Your task to perform on an android device: turn off notifications settings in the gmail app Image 0: 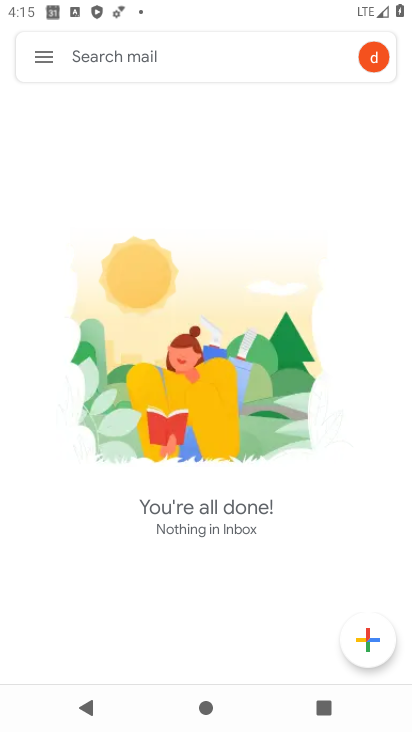
Step 0: click (39, 53)
Your task to perform on an android device: turn off notifications settings in the gmail app Image 1: 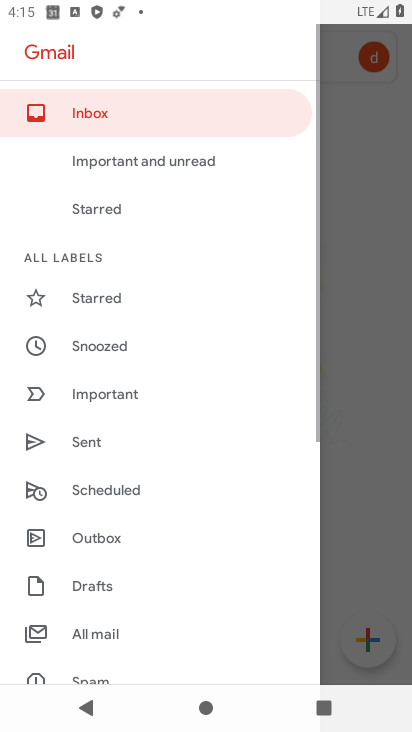
Step 1: drag from (144, 581) to (145, 214)
Your task to perform on an android device: turn off notifications settings in the gmail app Image 2: 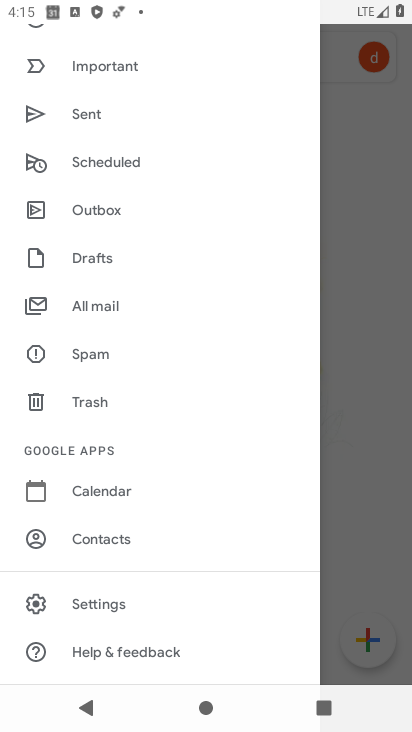
Step 2: click (120, 603)
Your task to perform on an android device: turn off notifications settings in the gmail app Image 3: 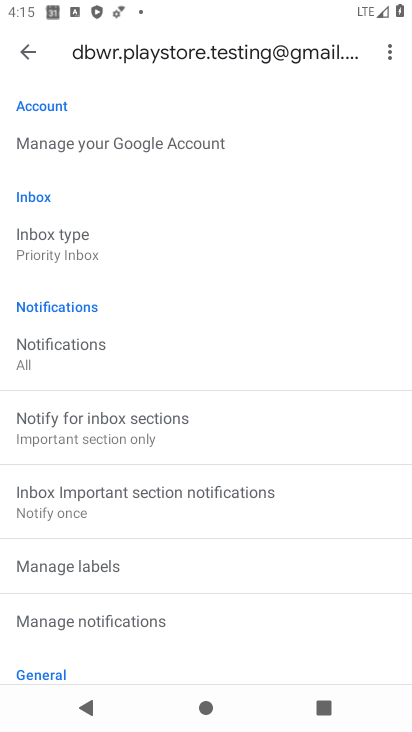
Step 3: click (105, 613)
Your task to perform on an android device: turn off notifications settings in the gmail app Image 4: 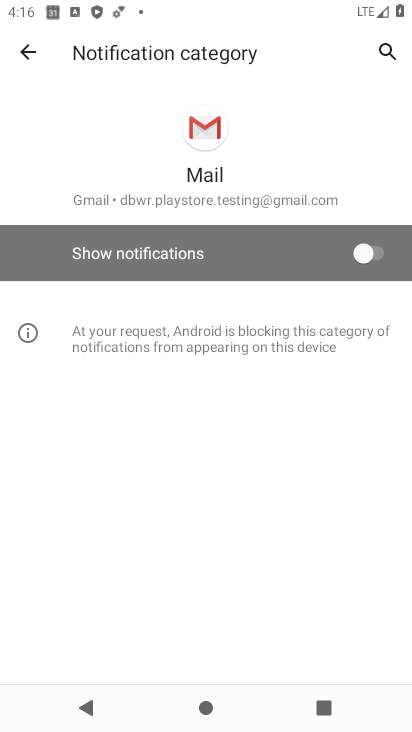
Step 4: task complete